Your task to perform on an android device: Go to notification settings Image 0: 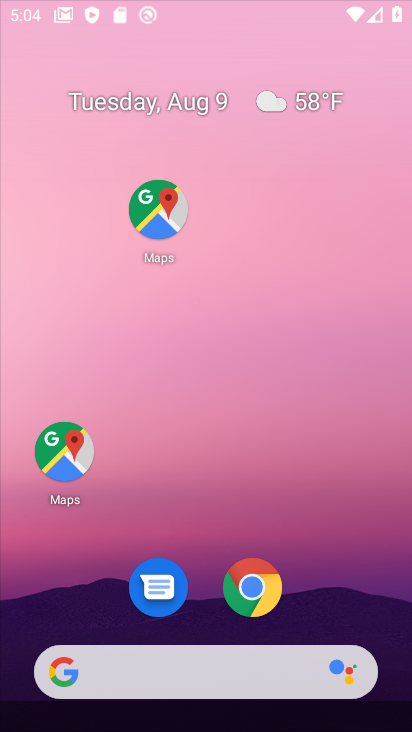
Step 0: drag from (107, 711) to (227, 153)
Your task to perform on an android device: Go to notification settings Image 1: 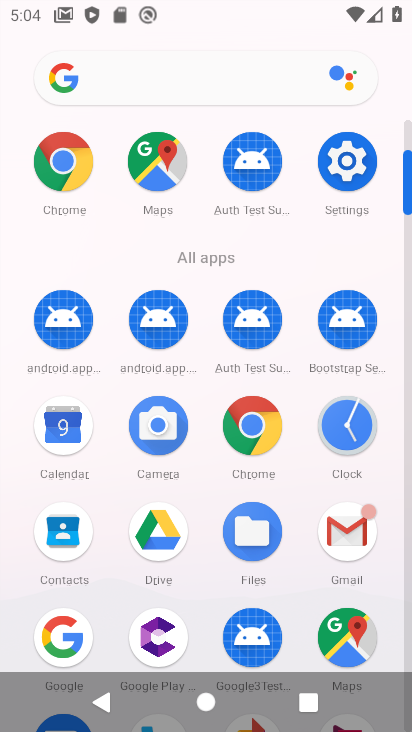
Step 1: drag from (221, 630) to (210, 188)
Your task to perform on an android device: Go to notification settings Image 2: 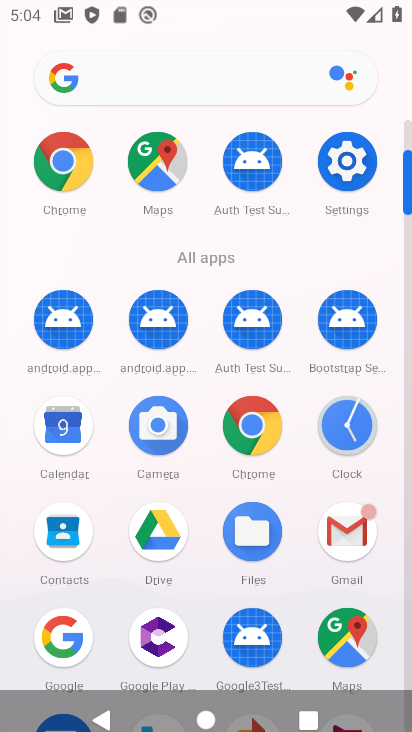
Step 2: click (360, 163)
Your task to perform on an android device: Go to notification settings Image 3: 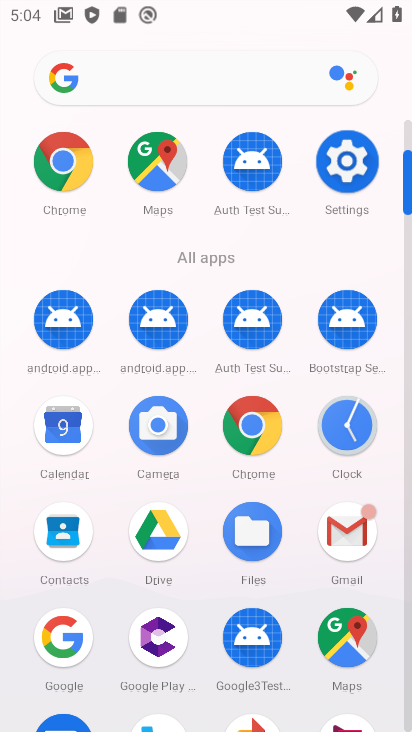
Step 3: drag from (360, 163) to (321, 163)
Your task to perform on an android device: Go to notification settings Image 4: 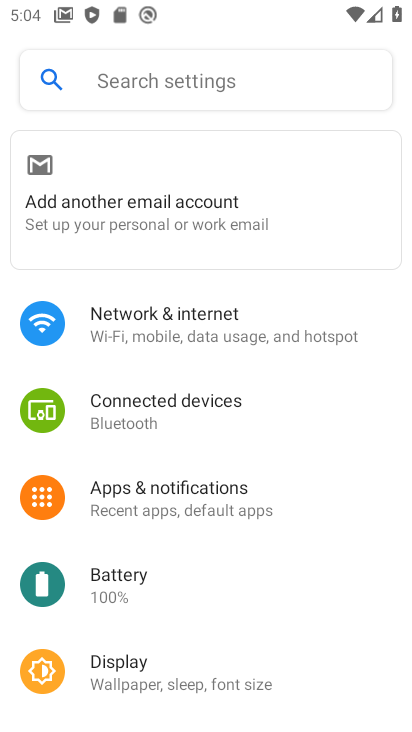
Step 4: click (154, 333)
Your task to perform on an android device: Go to notification settings Image 5: 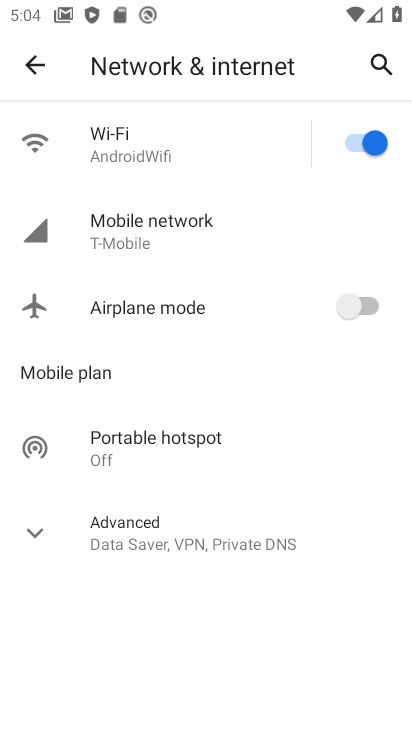
Step 5: click (36, 56)
Your task to perform on an android device: Go to notification settings Image 6: 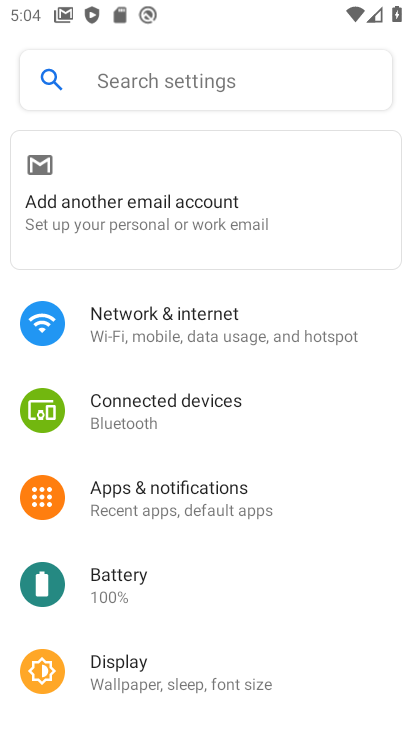
Step 6: click (183, 501)
Your task to perform on an android device: Go to notification settings Image 7: 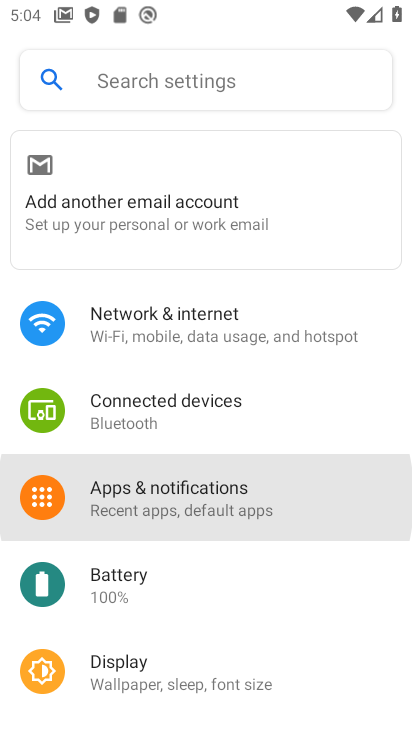
Step 7: click (182, 501)
Your task to perform on an android device: Go to notification settings Image 8: 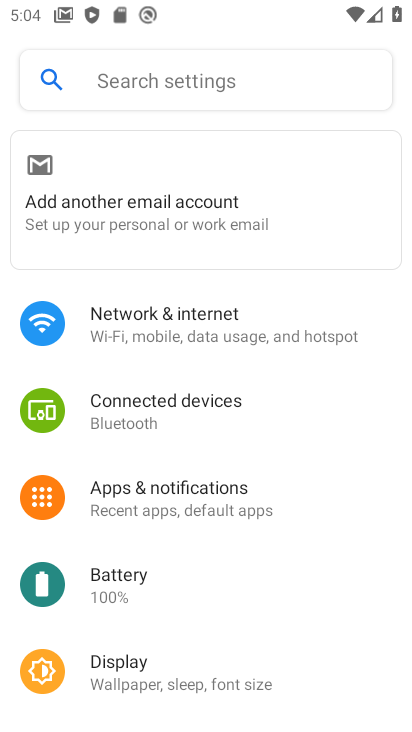
Step 8: click (182, 501)
Your task to perform on an android device: Go to notification settings Image 9: 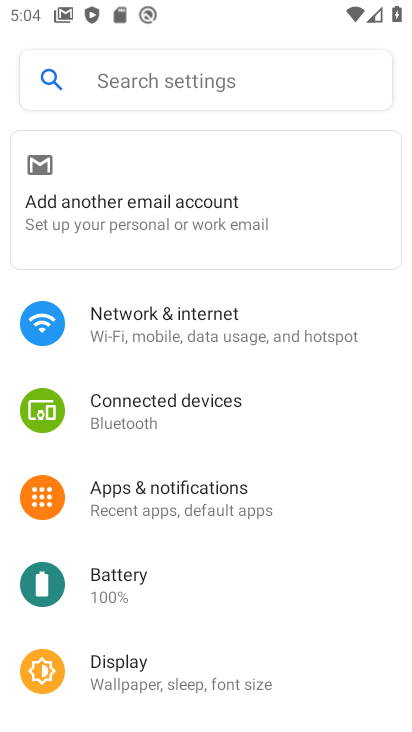
Step 9: click (182, 501)
Your task to perform on an android device: Go to notification settings Image 10: 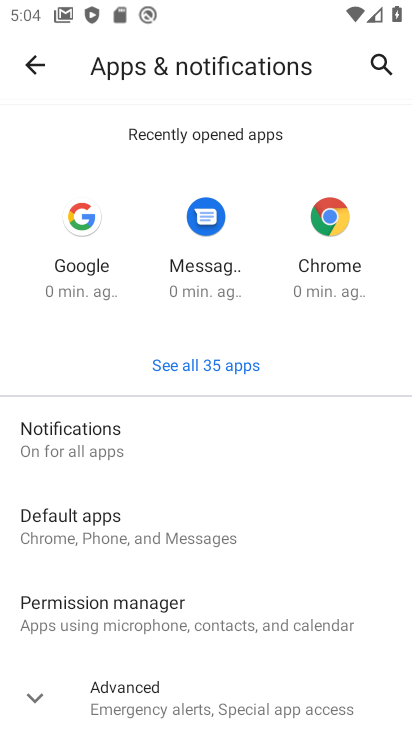
Step 10: task complete